Your task to perform on an android device: Go to privacy settings Image 0: 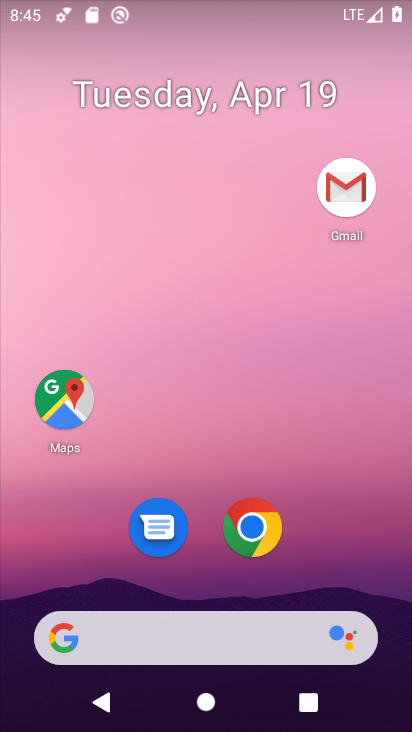
Step 0: drag from (365, 472) to (339, 75)
Your task to perform on an android device: Go to privacy settings Image 1: 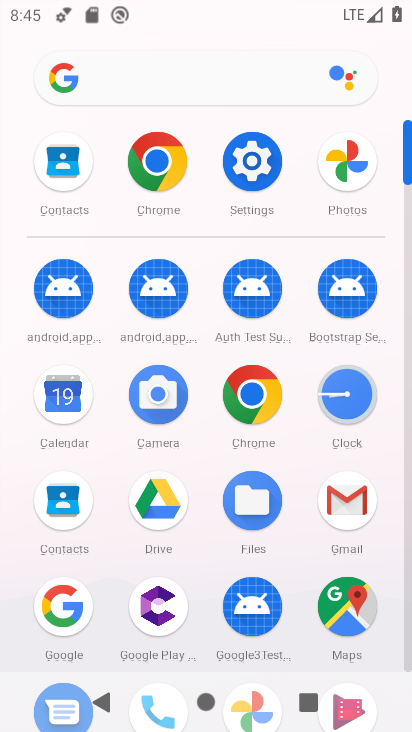
Step 1: drag from (378, 346) to (378, 176)
Your task to perform on an android device: Go to privacy settings Image 2: 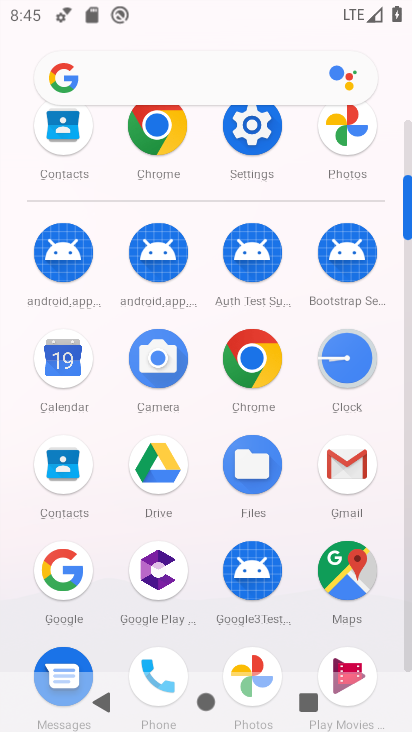
Step 2: click (258, 135)
Your task to perform on an android device: Go to privacy settings Image 3: 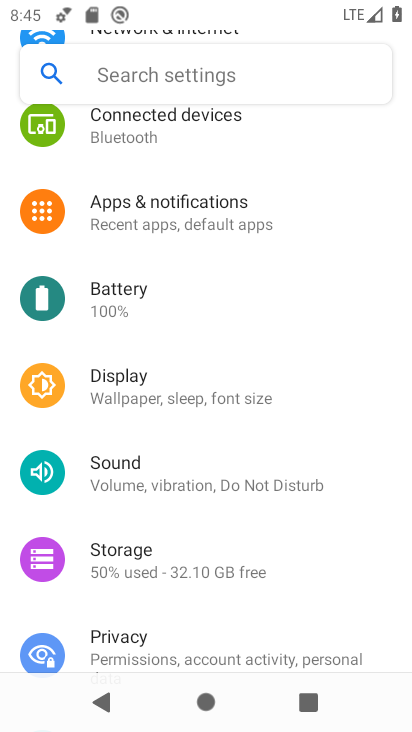
Step 3: drag from (344, 375) to (344, 180)
Your task to perform on an android device: Go to privacy settings Image 4: 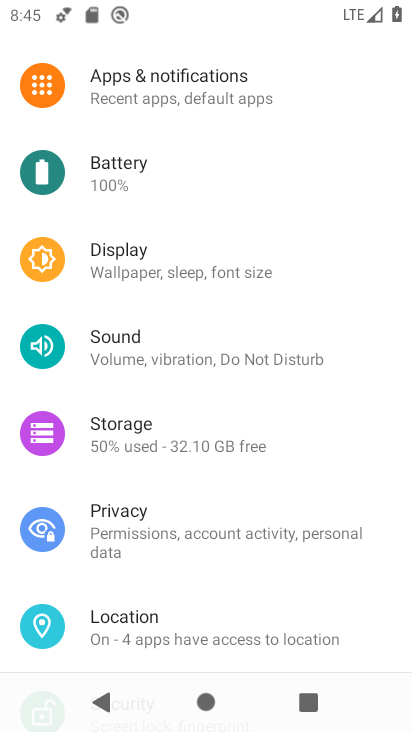
Step 4: drag from (350, 467) to (346, 203)
Your task to perform on an android device: Go to privacy settings Image 5: 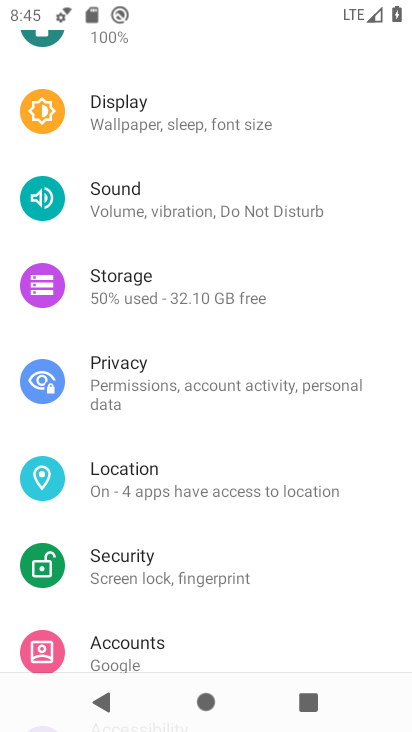
Step 5: drag from (328, 555) to (326, 262)
Your task to perform on an android device: Go to privacy settings Image 6: 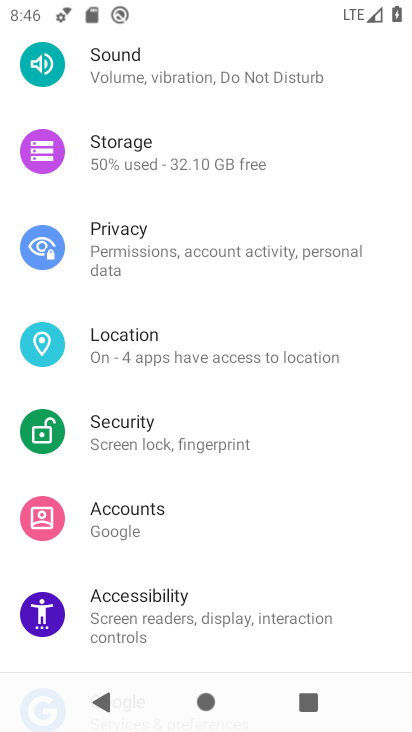
Step 6: click (134, 260)
Your task to perform on an android device: Go to privacy settings Image 7: 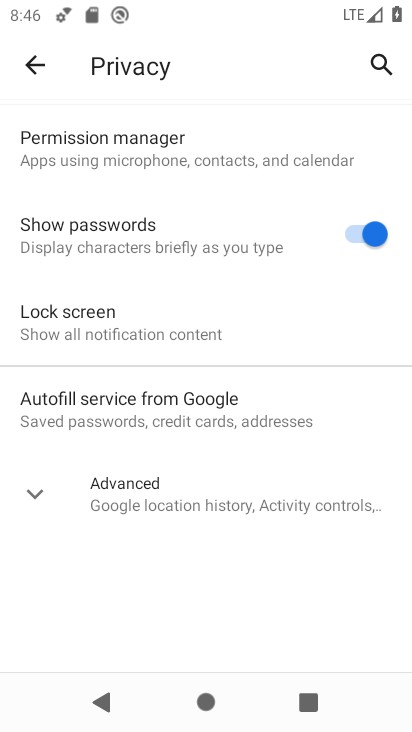
Step 7: task complete